Your task to perform on an android device: Open the map Image 0: 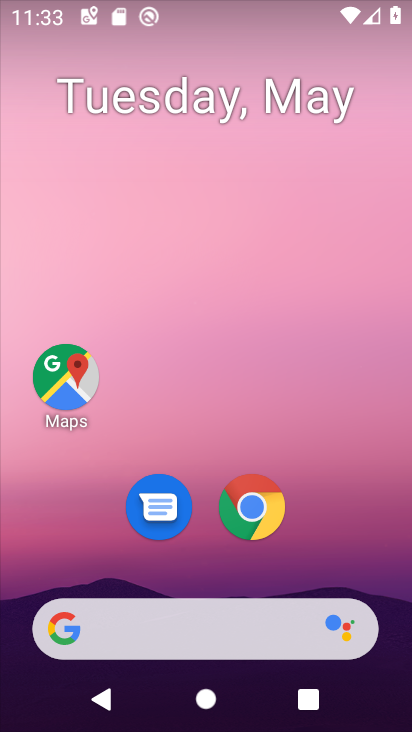
Step 0: drag from (255, 729) to (152, 61)
Your task to perform on an android device: Open the map Image 1: 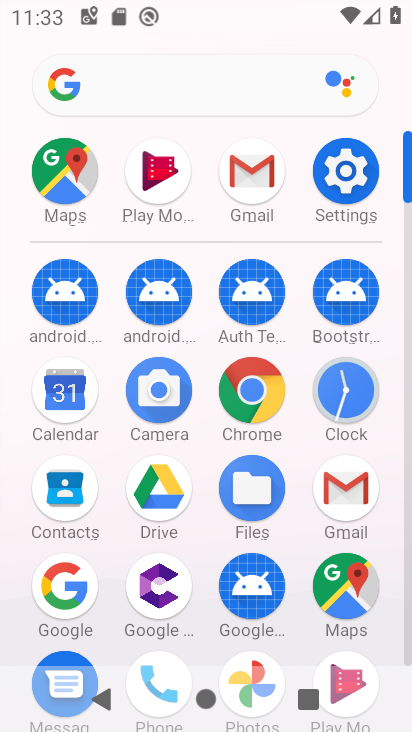
Step 1: drag from (200, 478) to (210, 163)
Your task to perform on an android device: Open the map Image 2: 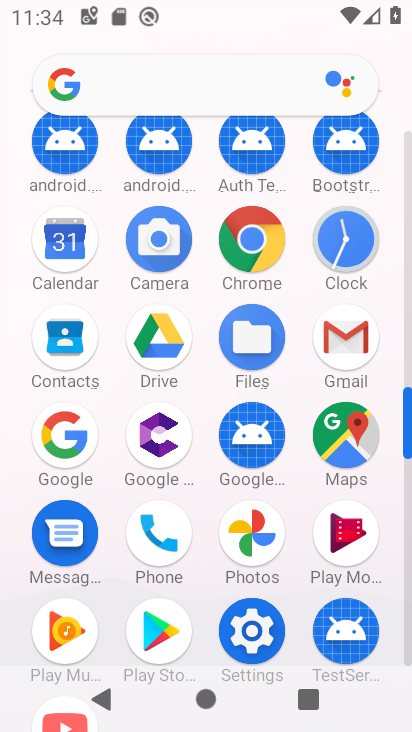
Step 2: drag from (189, 424) to (178, 117)
Your task to perform on an android device: Open the map Image 3: 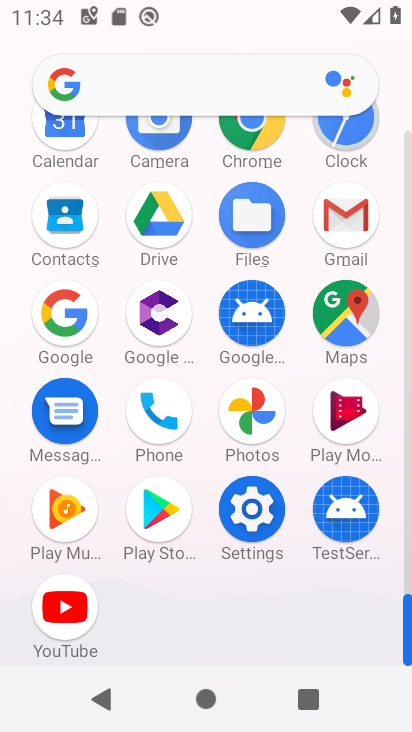
Step 3: drag from (198, 417) to (198, 198)
Your task to perform on an android device: Open the map Image 4: 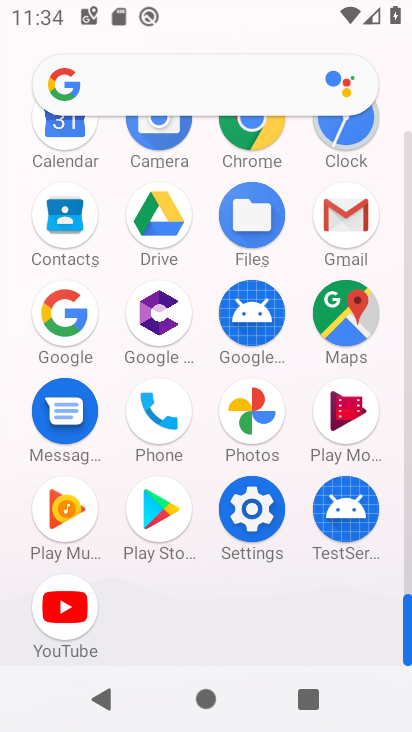
Step 4: click (350, 321)
Your task to perform on an android device: Open the map Image 5: 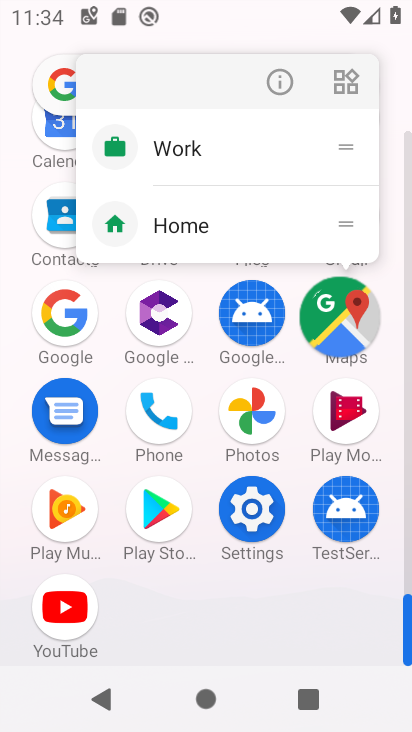
Step 5: click (339, 325)
Your task to perform on an android device: Open the map Image 6: 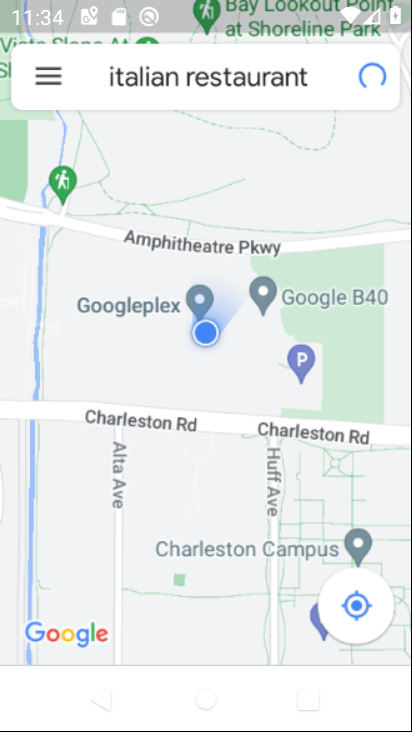
Step 6: click (339, 325)
Your task to perform on an android device: Open the map Image 7: 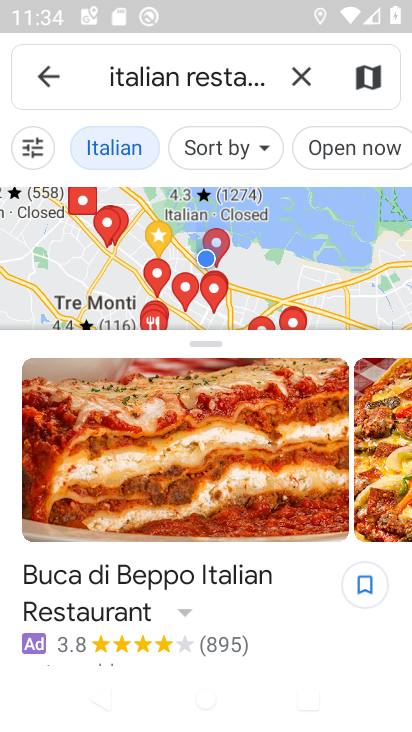
Step 7: task complete